Your task to perform on an android device: set the timer Image 0: 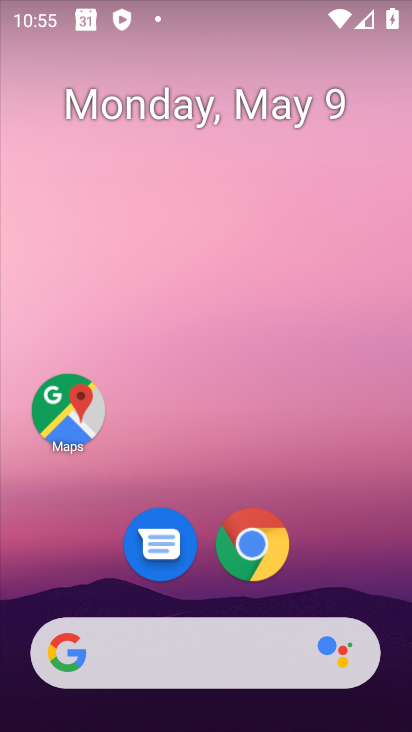
Step 0: drag from (40, 698) to (337, 146)
Your task to perform on an android device: set the timer Image 1: 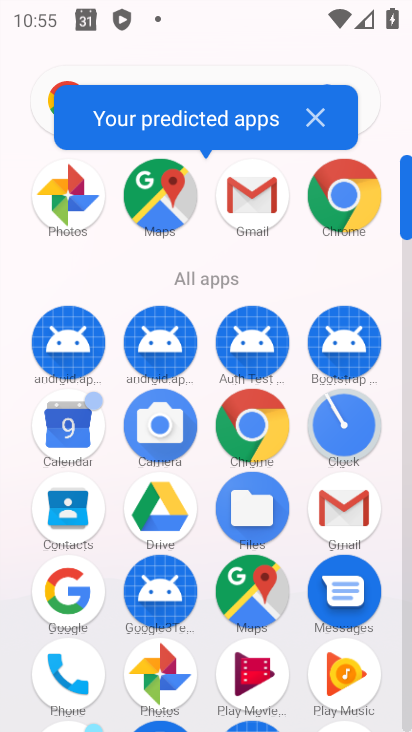
Step 1: click (353, 430)
Your task to perform on an android device: set the timer Image 2: 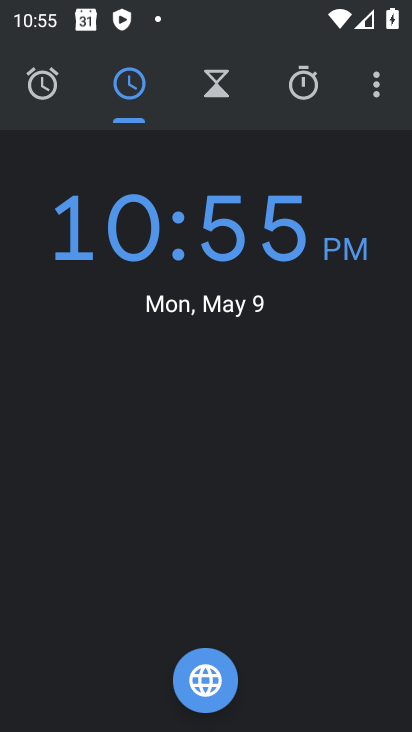
Step 2: click (205, 91)
Your task to perform on an android device: set the timer Image 3: 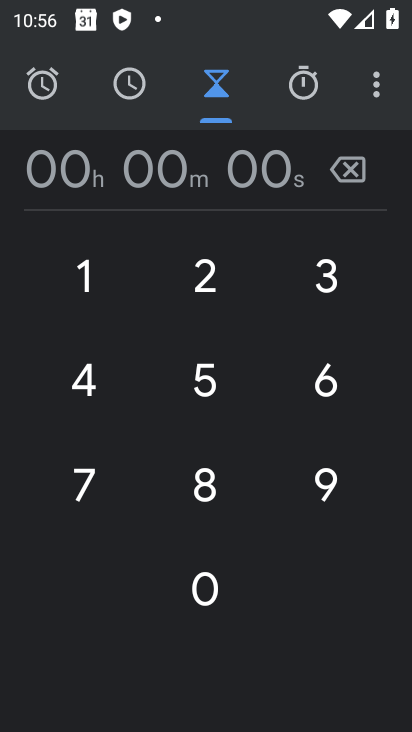
Step 3: click (98, 280)
Your task to perform on an android device: set the timer Image 4: 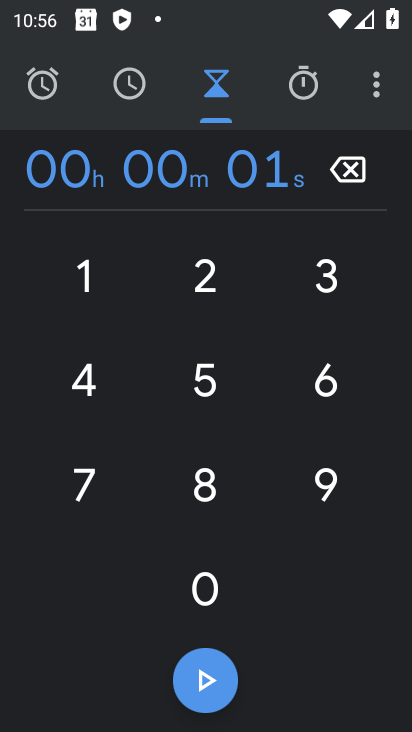
Step 4: click (222, 588)
Your task to perform on an android device: set the timer Image 5: 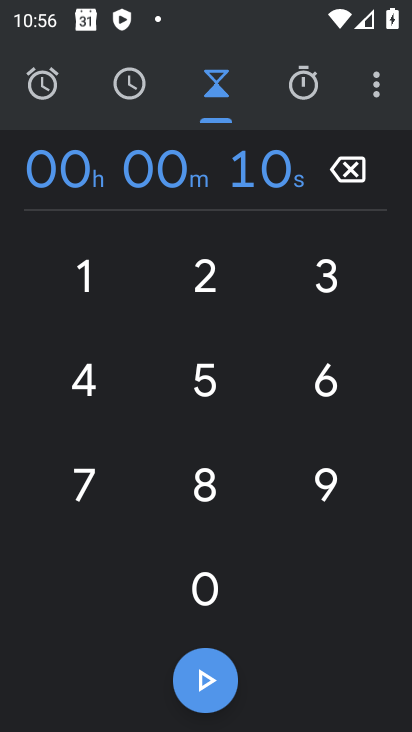
Step 5: click (222, 589)
Your task to perform on an android device: set the timer Image 6: 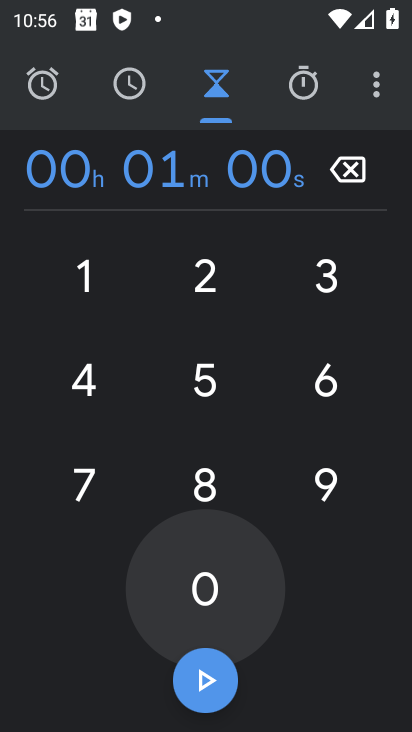
Step 6: click (221, 589)
Your task to perform on an android device: set the timer Image 7: 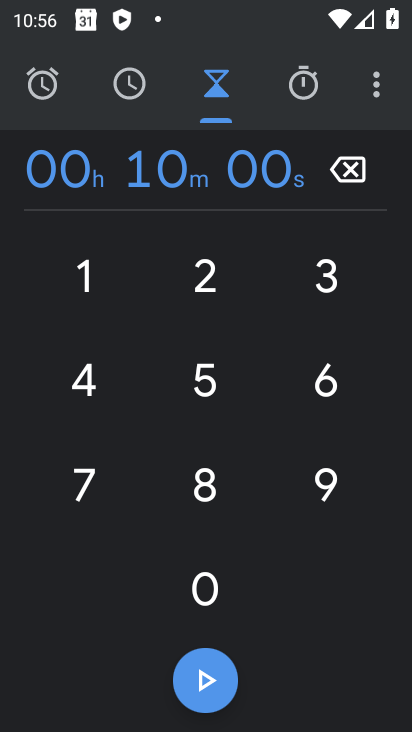
Step 7: click (220, 588)
Your task to perform on an android device: set the timer Image 8: 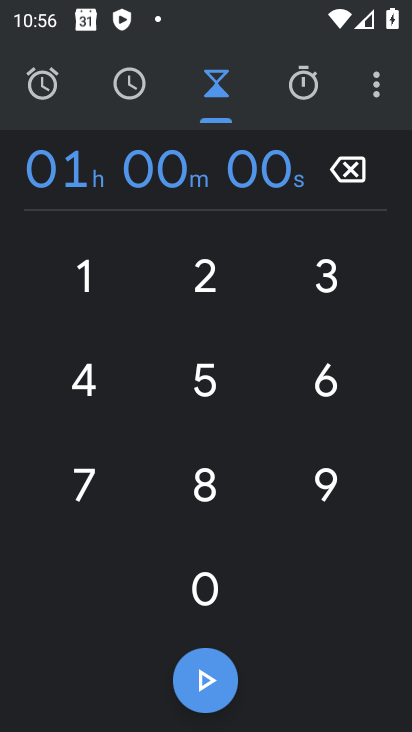
Step 8: task complete